Your task to perform on an android device: add a contact in the contacts app Image 0: 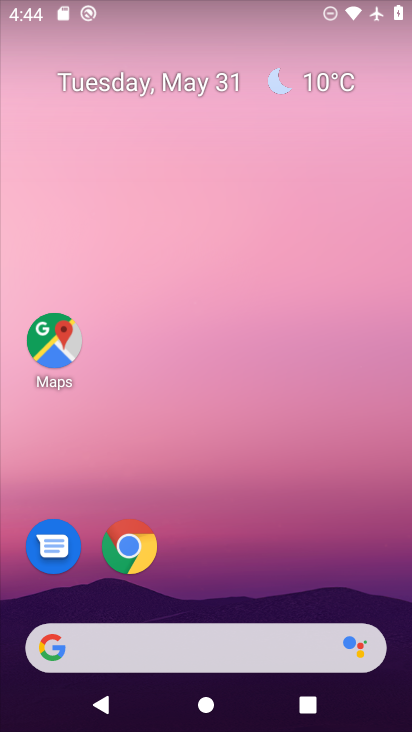
Step 0: drag from (275, 570) to (160, 33)
Your task to perform on an android device: add a contact in the contacts app Image 1: 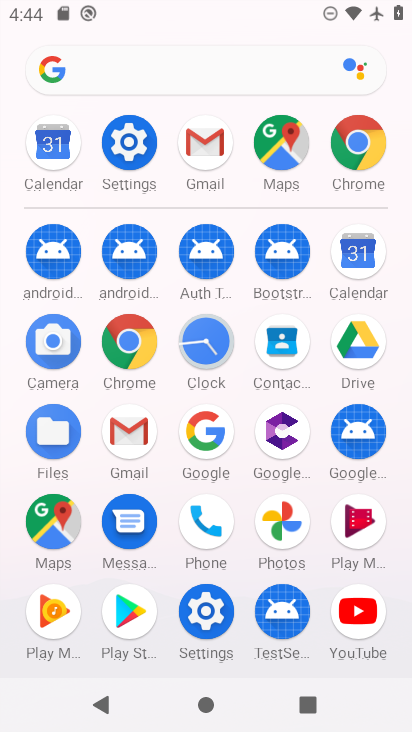
Step 1: click (282, 326)
Your task to perform on an android device: add a contact in the contacts app Image 2: 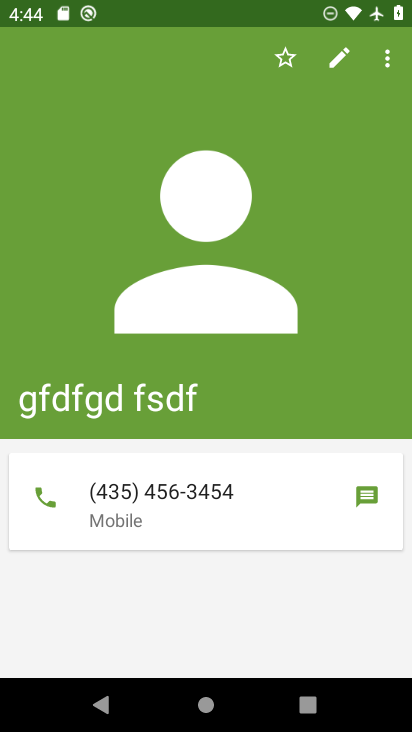
Step 2: press back button
Your task to perform on an android device: add a contact in the contacts app Image 3: 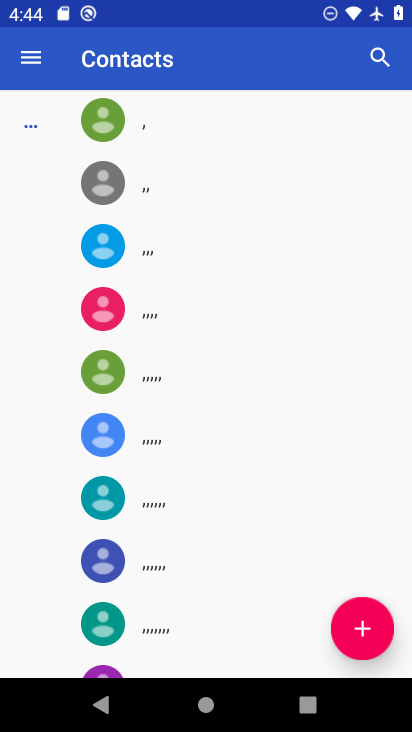
Step 3: click (359, 611)
Your task to perform on an android device: add a contact in the contacts app Image 4: 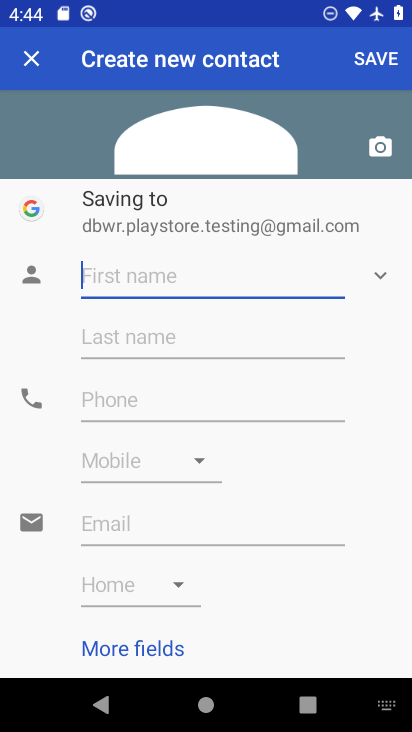
Step 4: type "gdf"
Your task to perform on an android device: add a contact in the contacts app Image 5: 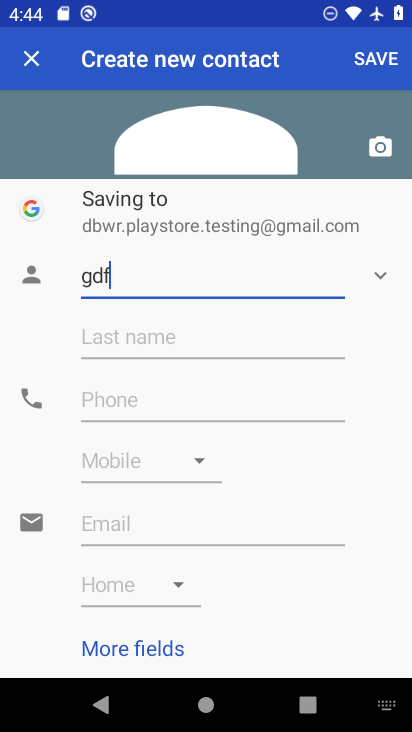
Step 5: type ""
Your task to perform on an android device: add a contact in the contacts app Image 6: 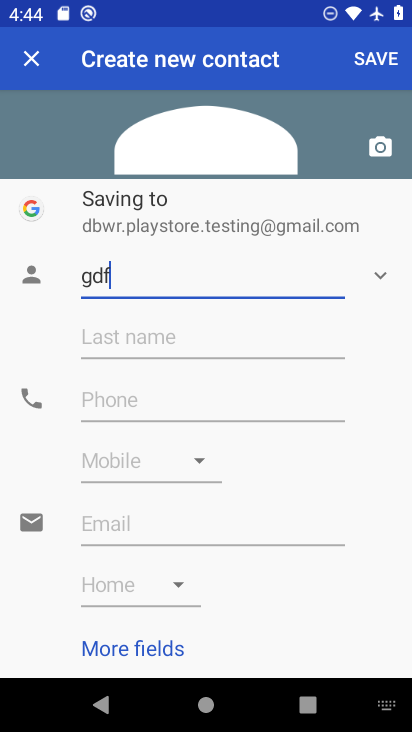
Step 6: click (240, 348)
Your task to perform on an android device: add a contact in the contacts app Image 7: 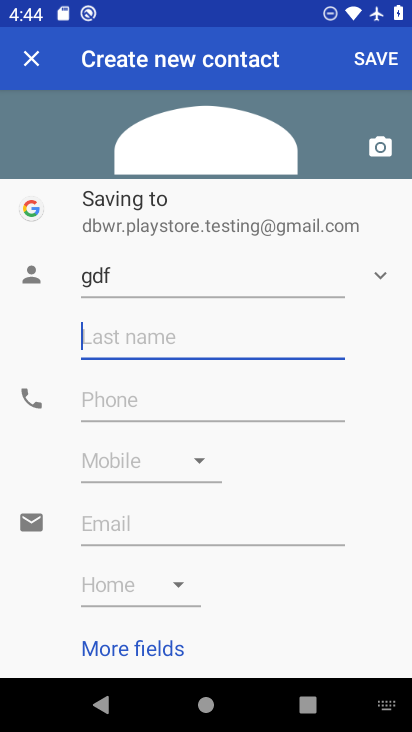
Step 7: type "fgdsf"
Your task to perform on an android device: add a contact in the contacts app Image 8: 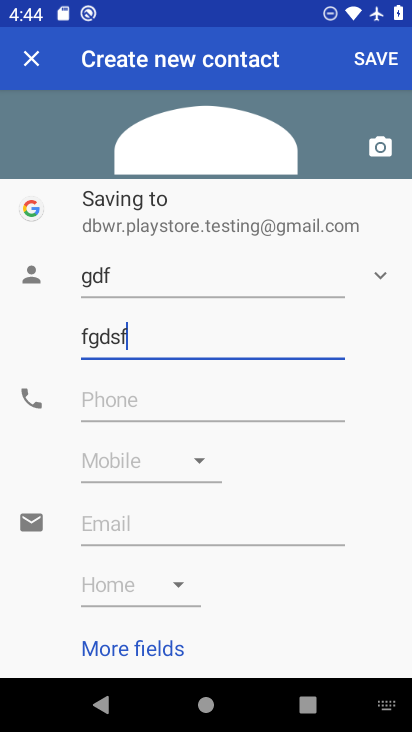
Step 8: type ""
Your task to perform on an android device: add a contact in the contacts app Image 9: 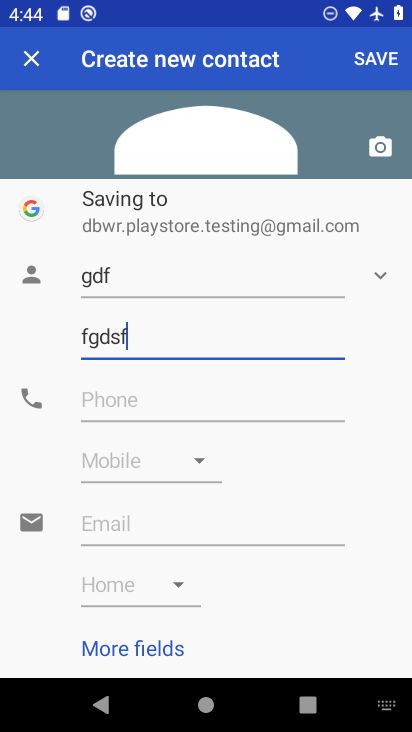
Step 9: click (258, 388)
Your task to perform on an android device: add a contact in the contacts app Image 10: 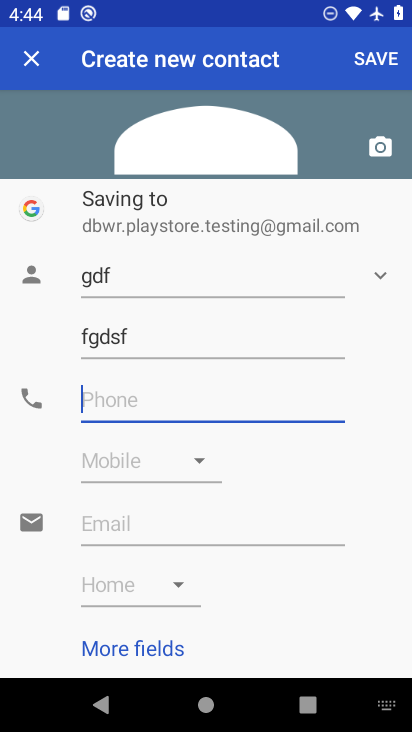
Step 10: type "56435645"
Your task to perform on an android device: add a contact in the contacts app Image 11: 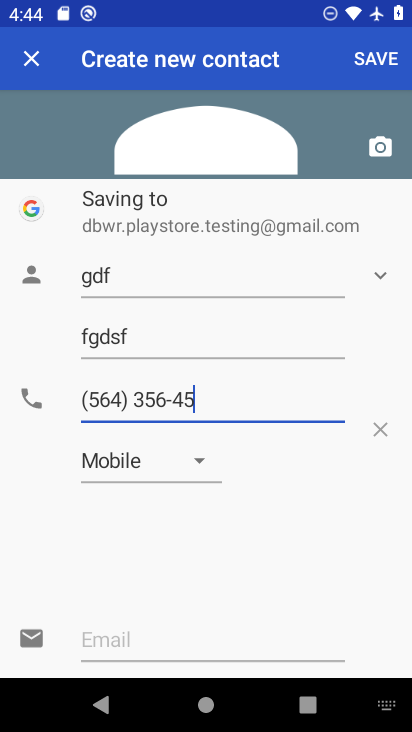
Step 11: type ""
Your task to perform on an android device: add a contact in the contacts app Image 12: 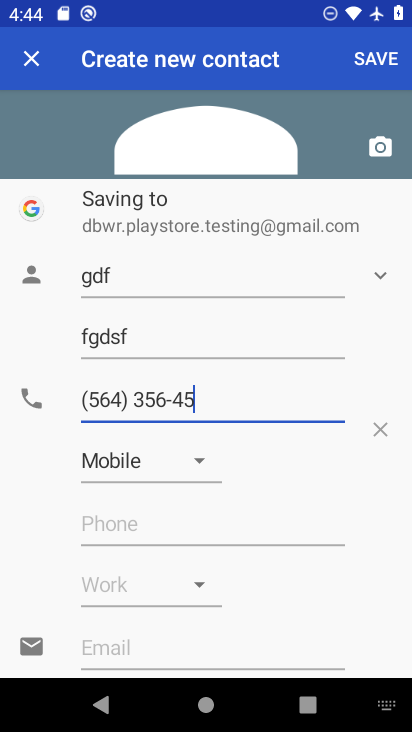
Step 12: click (371, 54)
Your task to perform on an android device: add a contact in the contacts app Image 13: 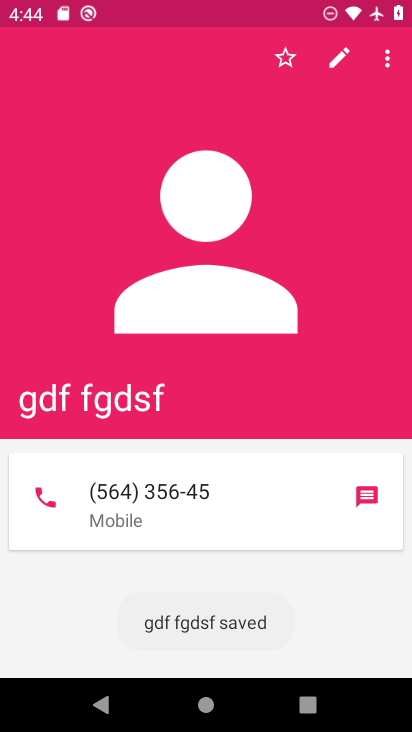
Step 13: task complete